Your task to perform on an android device: delete the emails in spam in the gmail app Image 0: 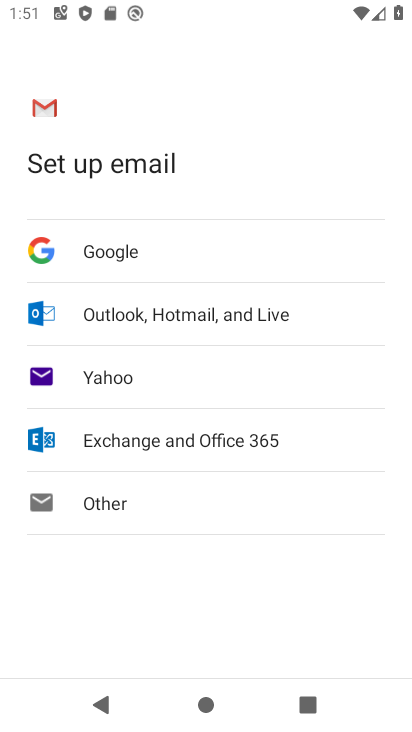
Step 0: press home button
Your task to perform on an android device: delete the emails in spam in the gmail app Image 1: 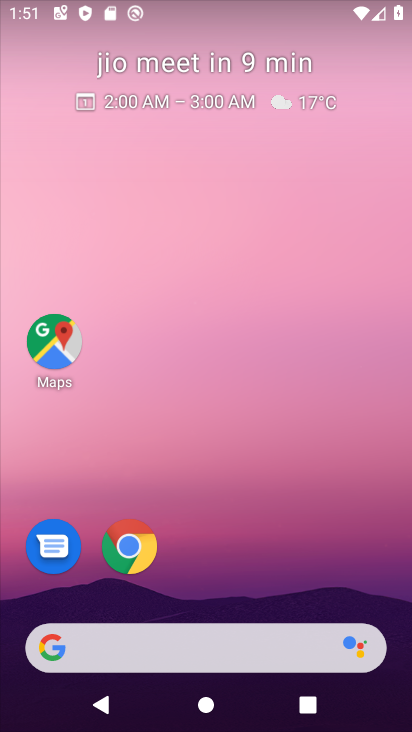
Step 1: drag from (260, 576) to (294, 111)
Your task to perform on an android device: delete the emails in spam in the gmail app Image 2: 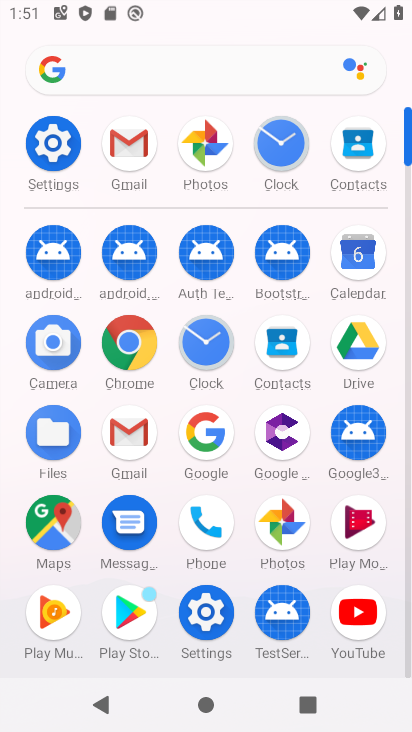
Step 2: click (104, 156)
Your task to perform on an android device: delete the emails in spam in the gmail app Image 3: 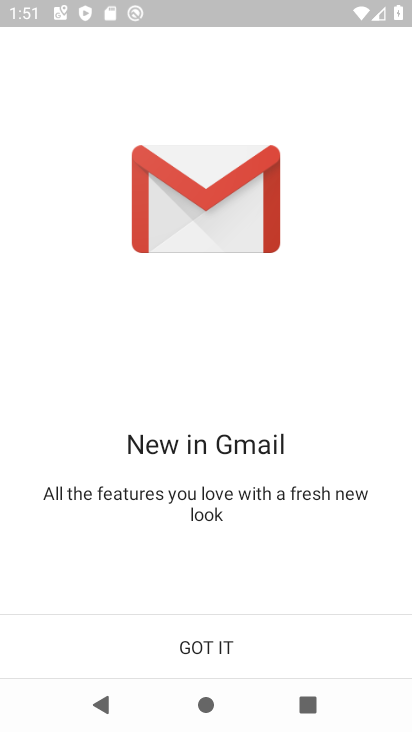
Step 3: click (251, 667)
Your task to perform on an android device: delete the emails in spam in the gmail app Image 4: 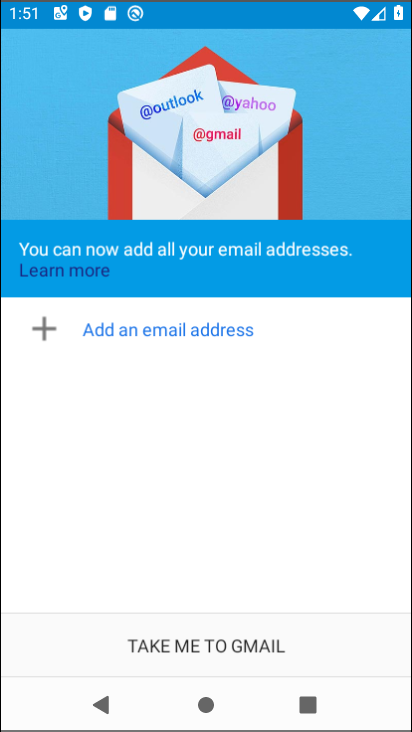
Step 4: click (251, 667)
Your task to perform on an android device: delete the emails in spam in the gmail app Image 5: 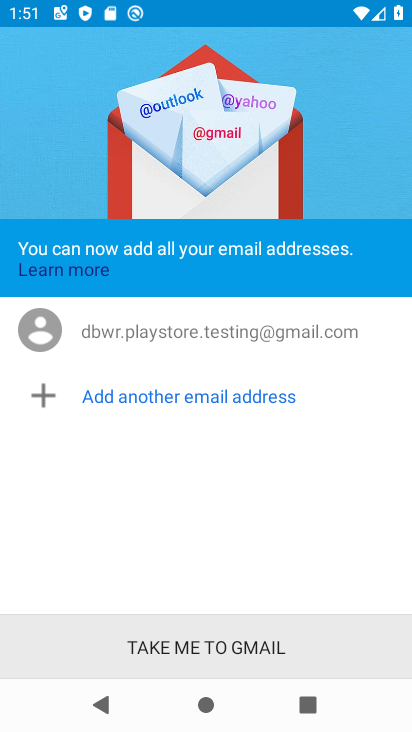
Step 5: click (251, 667)
Your task to perform on an android device: delete the emails in spam in the gmail app Image 6: 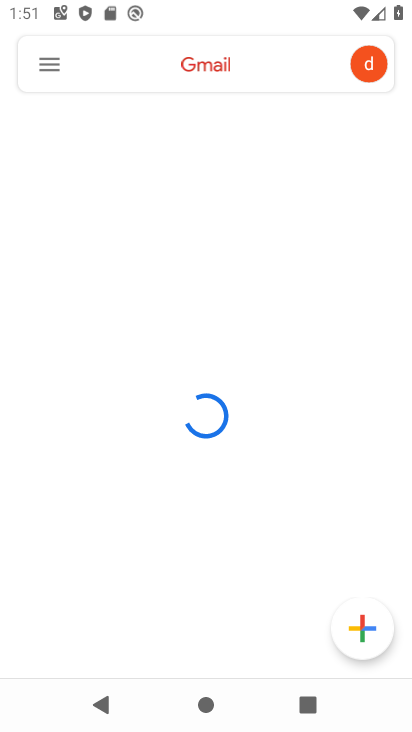
Step 6: task complete